Your task to perform on an android device: check data usage Image 0: 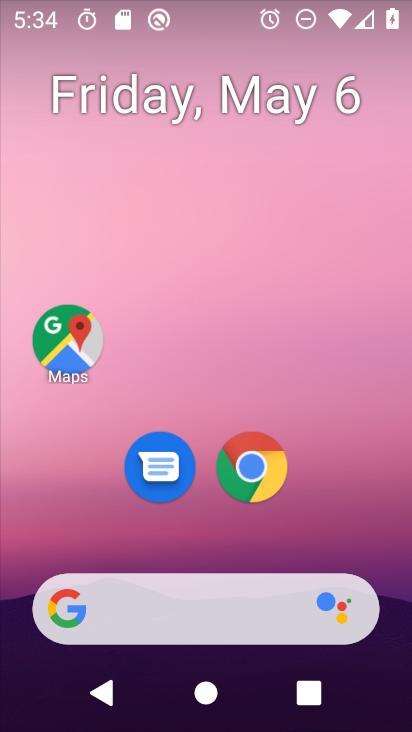
Step 0: drag from (325, 483) to (384, 263)
Your task to perform on an android device: check data usage Image 1: 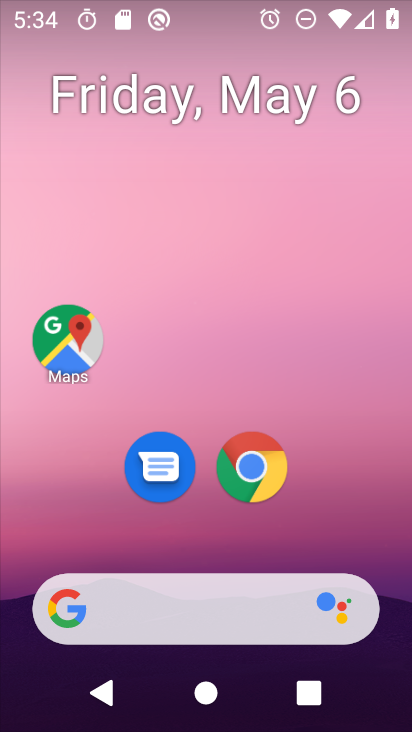
Step 1: drag from (305, 512) to (332, 253)
Your task to perform on an android device: check data usage Image 2: 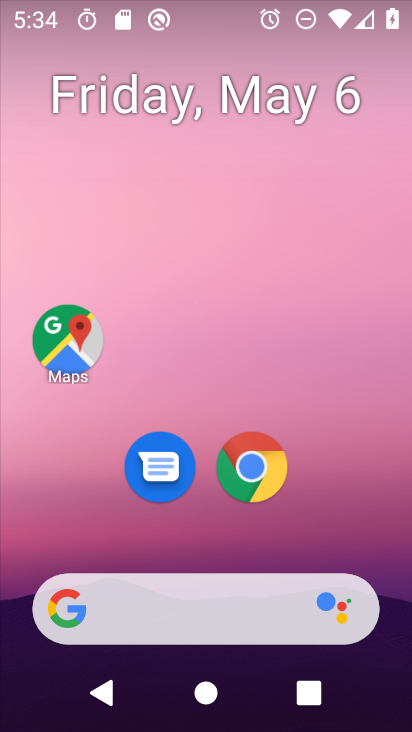
Step 2: drag from (320, 473) to (386, 14)
Your task to perform on an android device: check data usage Image 3: 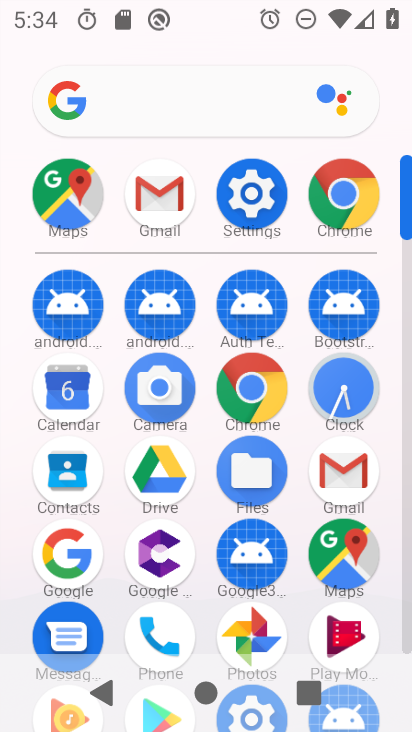
Step 3: click (262, 210)
Your task to perform on an android device: check data usage Image 4: 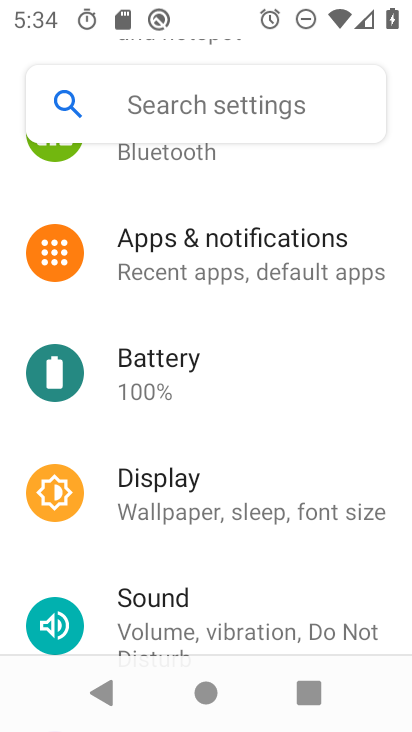
Step 4: drag from (276, 224) to (325, 485)
Your task to perform on an android device: check data usage Image 5: 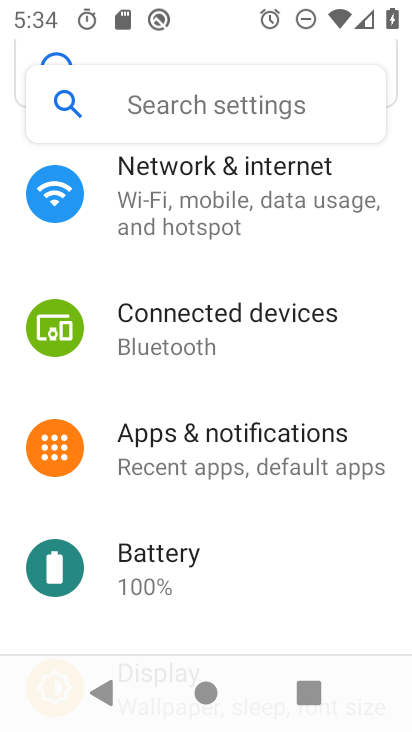
Step 5: click (195, 147)
Your task to perform on an android device: check data usage Image 6: 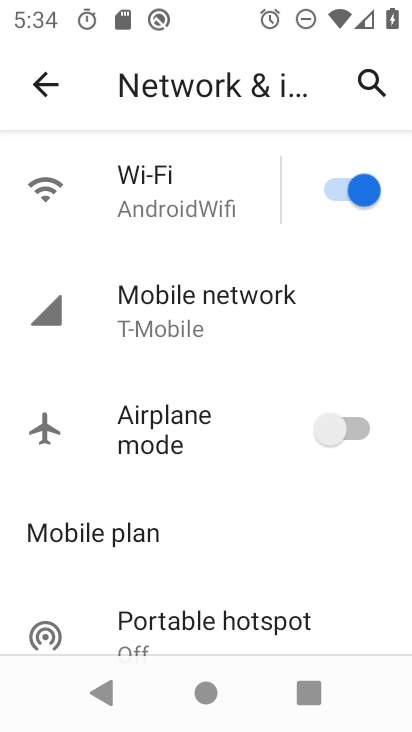
Step 6: drag from (215, 504) to (239, 301)
Your task to perform on an android device: check data usage Image 7: 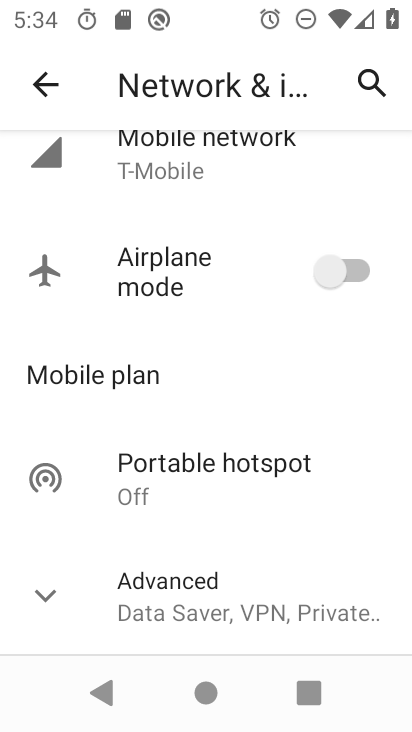
Step 7: drag from (195, 516) to (234, 300)
Your task to perform on an android device: check data usage Image 8: 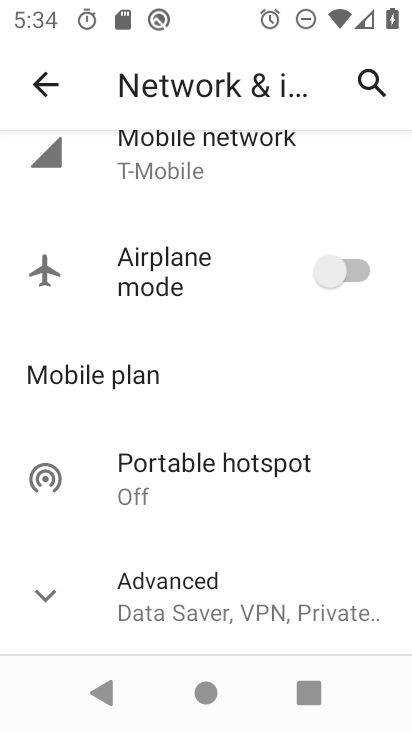
Step 8: drag from (246, 317) to (238, 436)
Your task to perform on an android device: check data usage Image 9: 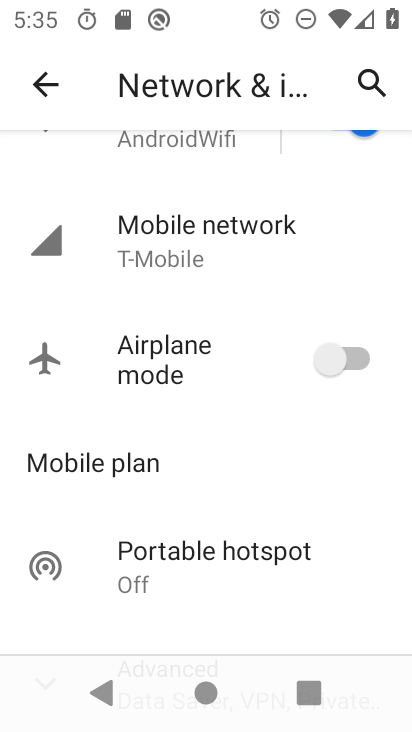
Step 9: drag from (242, 454) to (305, 258)
Your task to perform on an android device: check data usage Image 10: 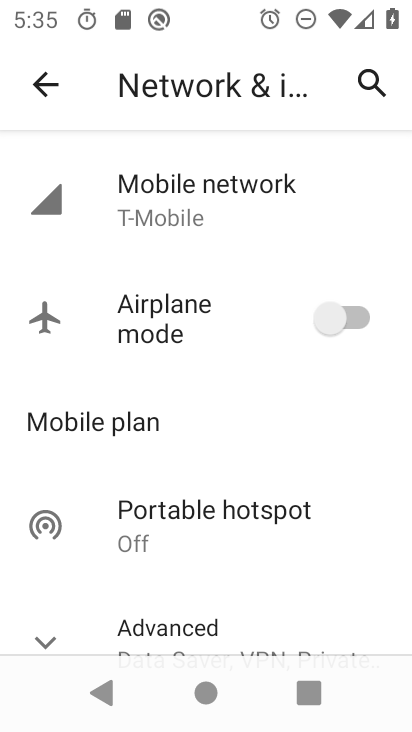
Step 10: drag from (225, 416) to (222, 613)
Your task to perform on an android device: check data usage Image 11: 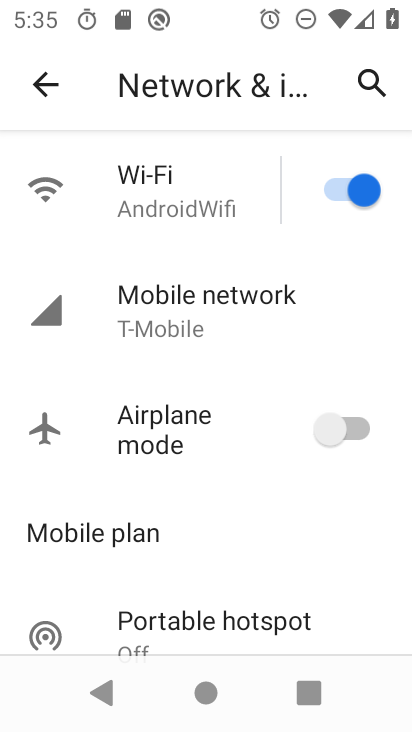
Step 11: click (302, 304)
Your task to perform on an android device: check data usage Image 12: 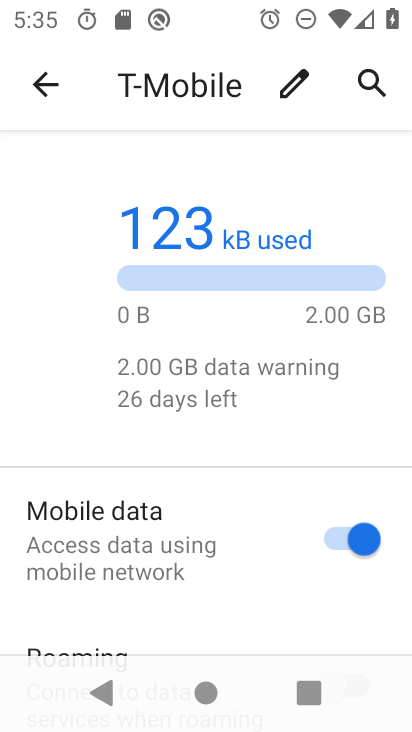
Step 12: task complete